Your task to perform on an android device: change the clock display to digital Image 0: 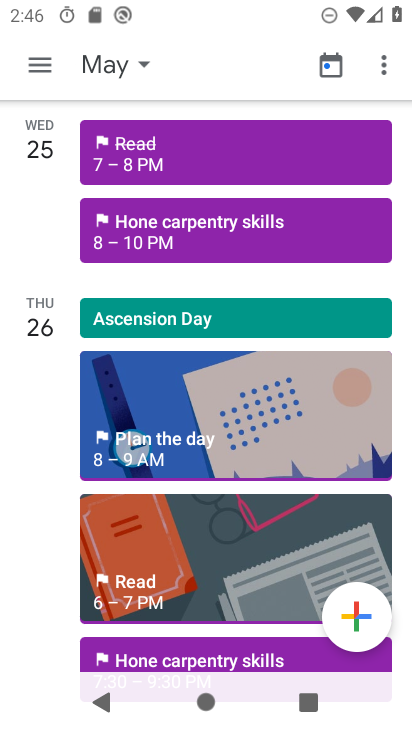
Step 0: task complete